Your task to perform on an android device: create a new album in the google photos Image 0: 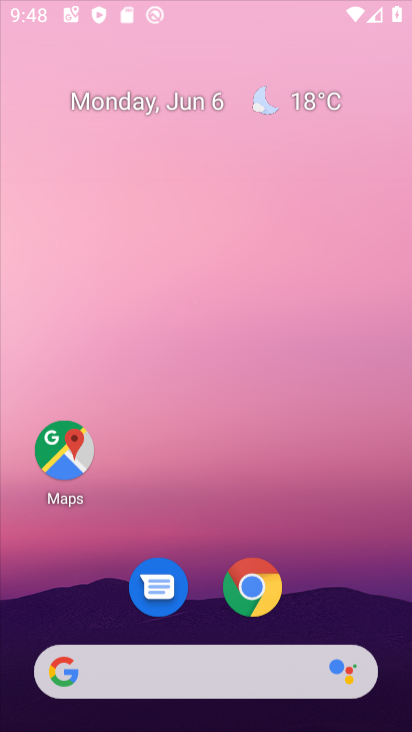
Step 0: click (348, 30)
Your task to perform on an android device: create a new album in the google photos Image 1: 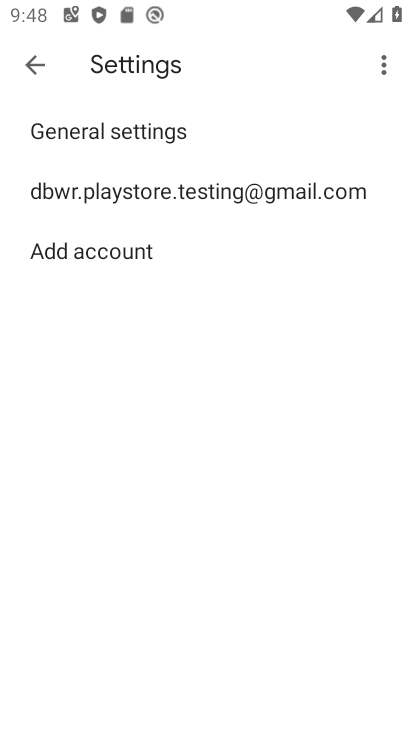
Step 1: press home button
Your task to perform on an android device: create a new album in the google photos Image 2: 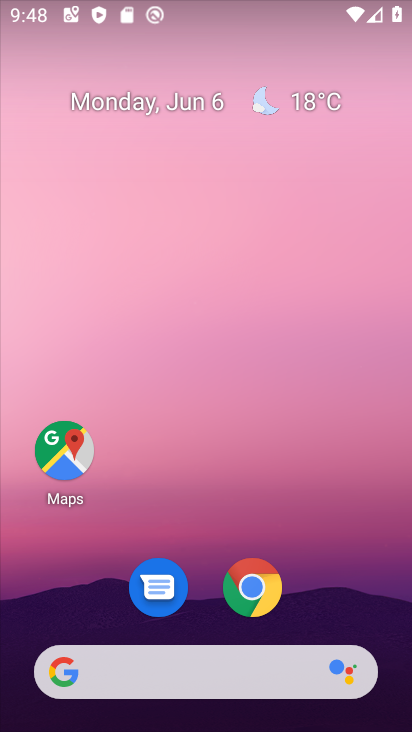
Step 2: drag from (353, 526) to (292, 60)
Your task to perform on an android device: create a new album in the google photos Image 3: 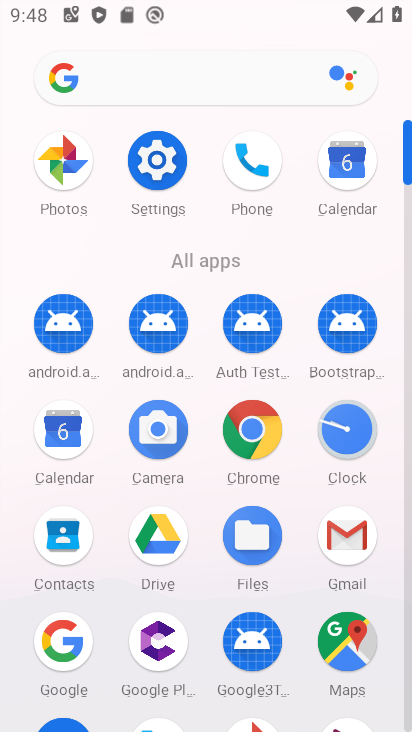
Step 3: click (408, 403)
Your task to perform on an android device: create a new album in the google photos Image 4: 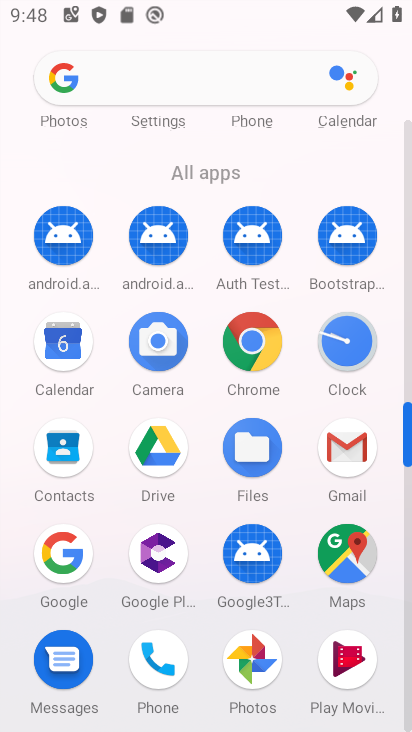
Step 4: click (262, 661)
Your task to perform on an android device: create a new album in the google photos Image 5: 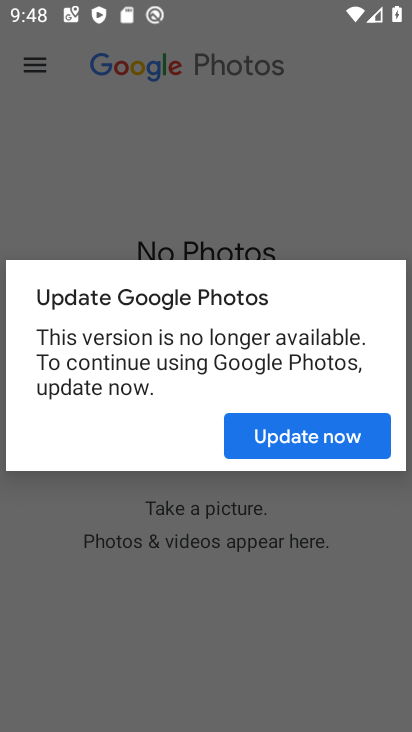
Step 5: click (322, 438)
Your task to perform on an android device: create a new album in the google photos Image 6: 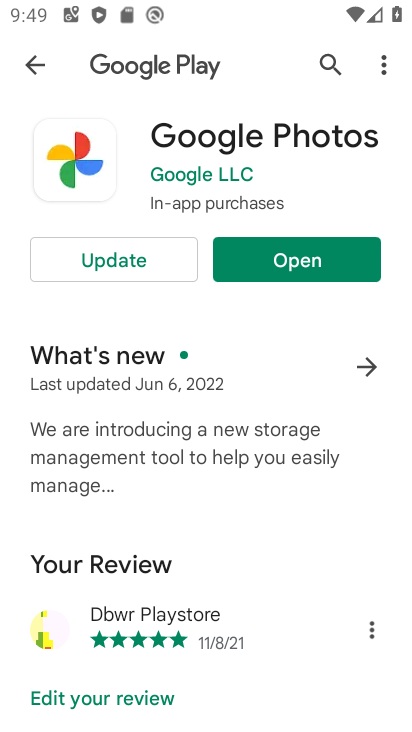
Step 6: click (155, 250)
Your task to perform on an android device: create a new album in the google photos Image 7: 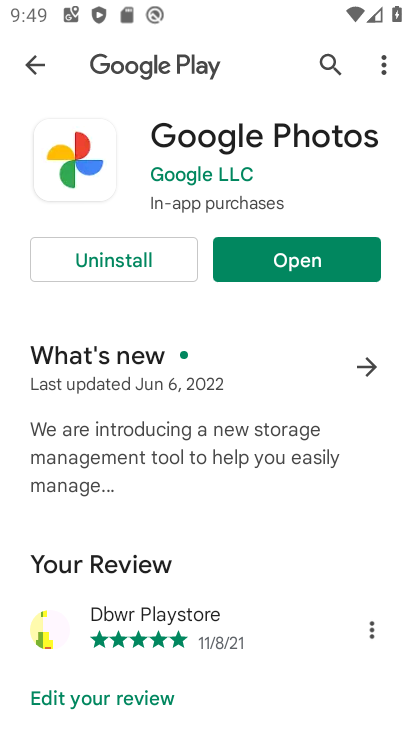
Step 7: click (261, 260)
Your task to perform on an android device: create a new album in the google photos Image 8: 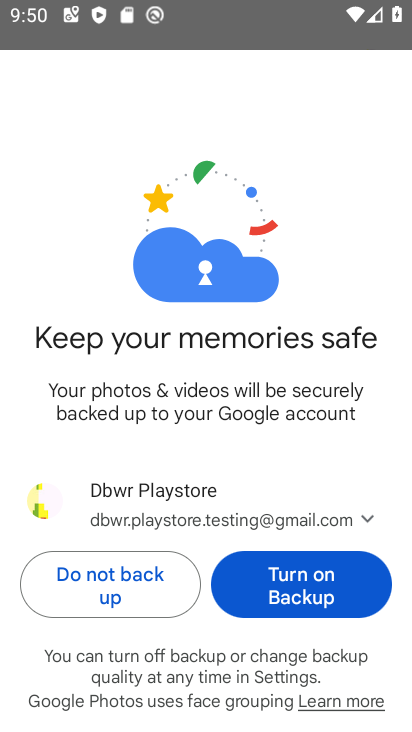
Step 8: click (310, 571)
Your task to perform on an android device: create a new album in the google photos Image 9: 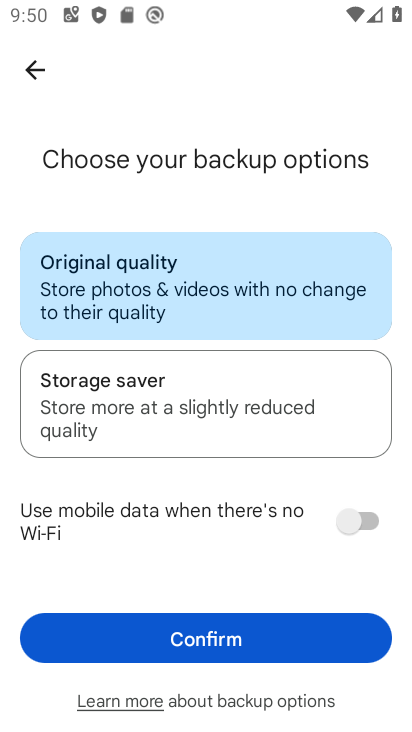
Step 9: click (283, 631)
Your task to perform on an android device: create a new album in the google photos Image 10: 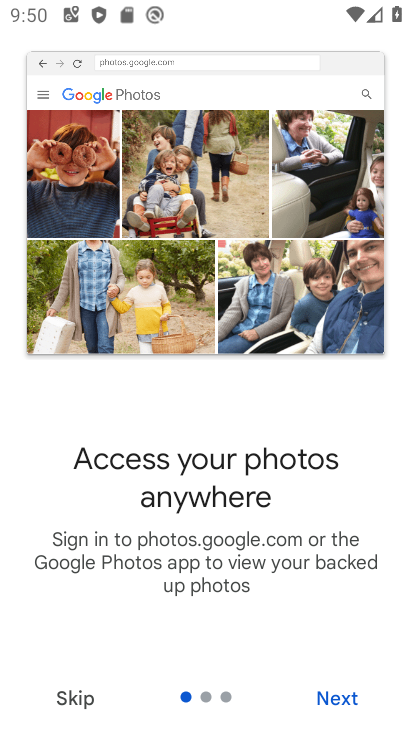
Step 10: click (326, 690)
Your task to perform on an android device: create a new album in the google photos Image 11: 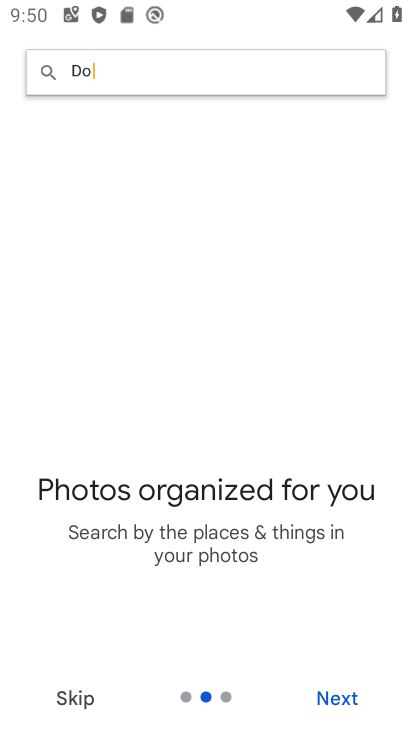
Step 11: click (326, 690)
Your task to perform on an android device: create a new album in the google photos Image 12: 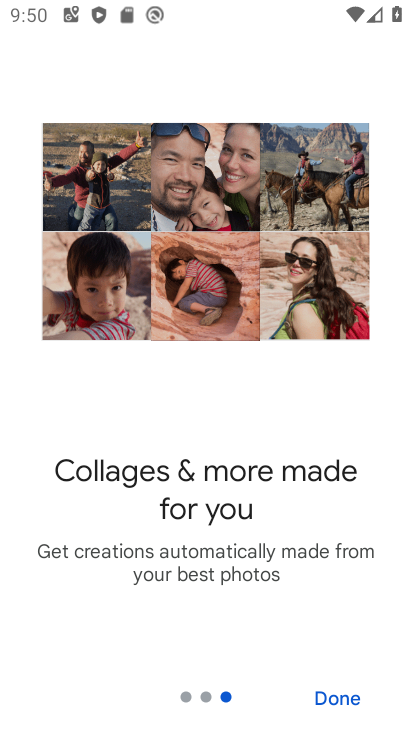
Step 12: click (326, 690)
Your task to perform on an android device: create a new album in the google photos Image 13: 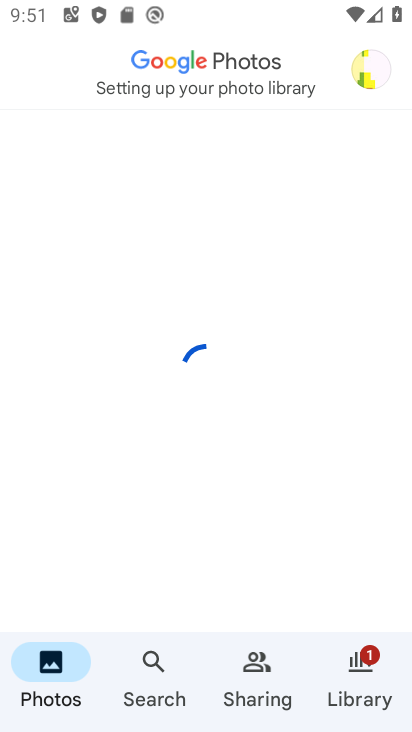
Step 13: task complete